Your task to perform on an android device: Open calendar and show me the third week of next month Image 0: 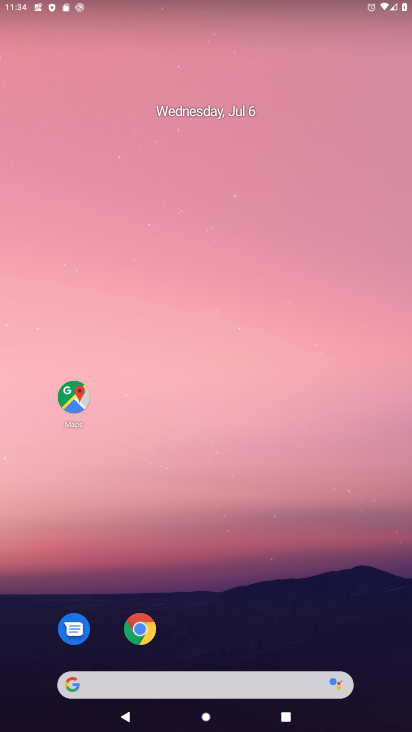
Step 0: drag from (233, 617) to (314, 85)
Your task to perform on an android device: Open calendar and show me the third week of next month Image 1: 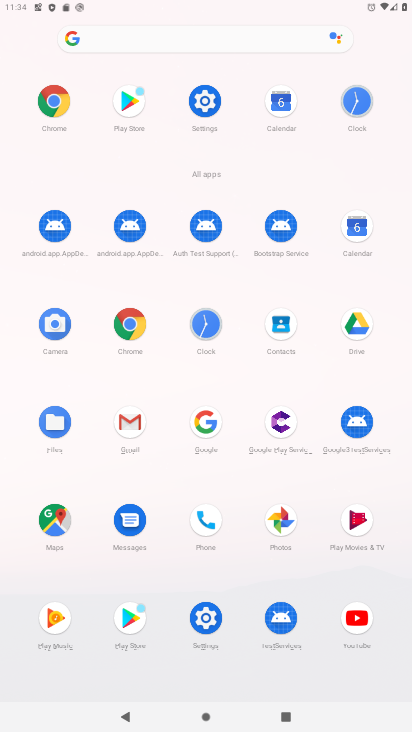
Step 1: click (280, 102)
Your task to perform on an android device: Open calendar and show me the third week of next month Image 2: 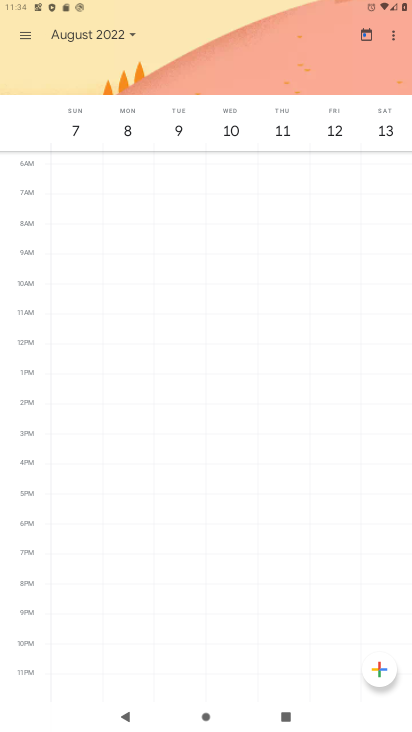
Step 2: click (371, 34)
Your task to perform on an android device: Open calendar and show me the third week of next month Image 3: 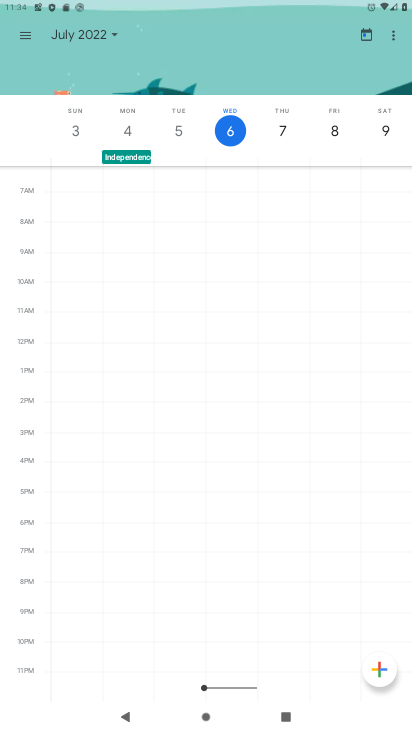
Step 3: click (115, 35)
Your task to perform on an android device: Open calendar and show me the third week of next month Image 4: 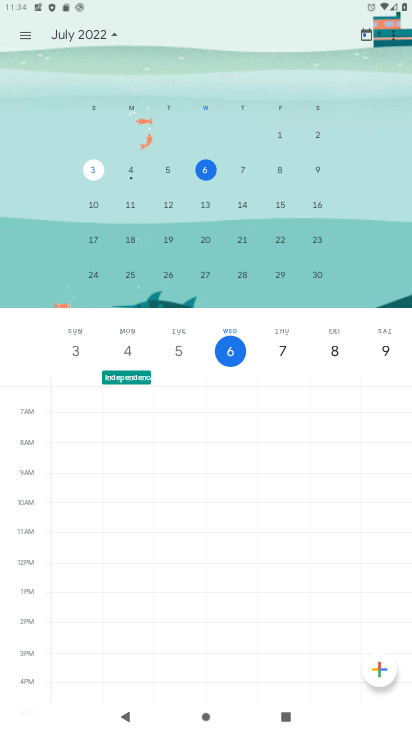
Step 4: drag from (315, 225) to (4, 197)
Your task to perform on an android device: Open calendar and show me the third week of next month Image 5: 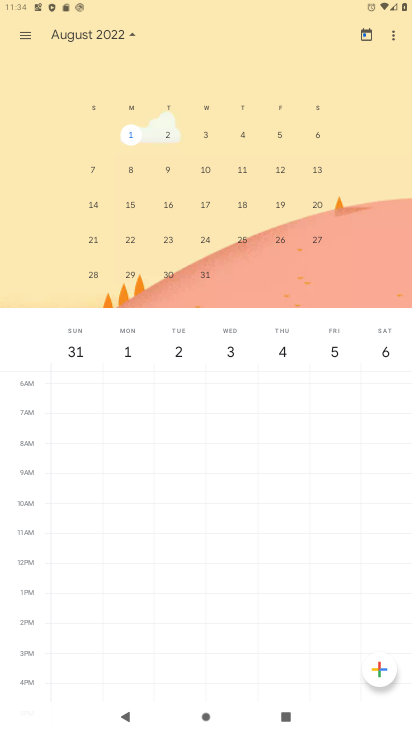
Step 5: click (133, 199)
Your task to perform on an android device: Open calendar and show me the third week of next month Image 6: 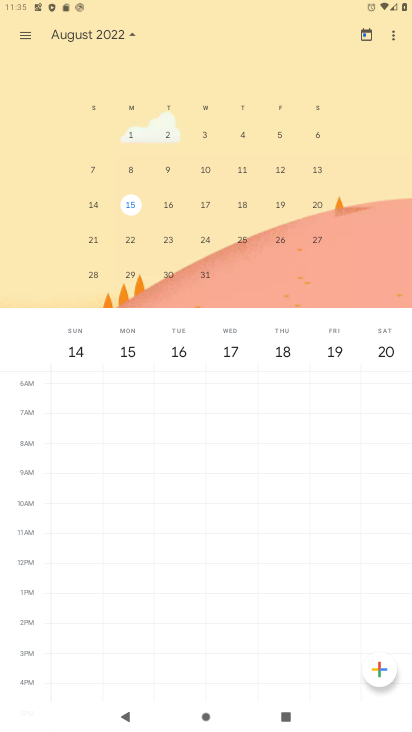
Step 6: click (25, 35)
Your task to perform on an android device: Open calendar and show me the third week of next month Image 7: 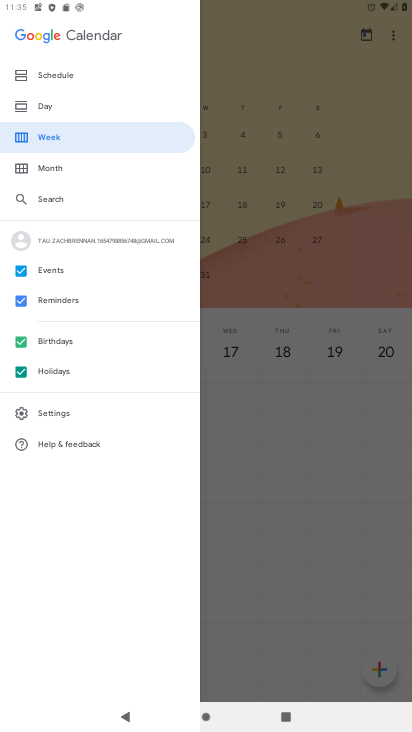
Step 7: click (54, 140)
Your task to perform on an android device: Open calendar and show me the third week of next month Image 8: 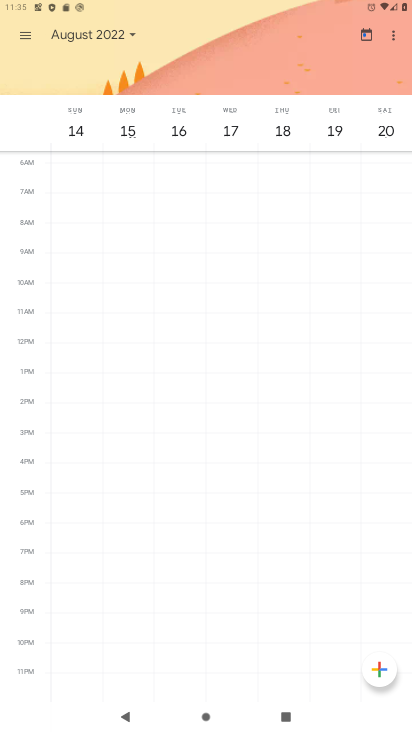
Step 8: task complete